Your task to perform on an android device: add a label to a message in the gmail app Image 0: 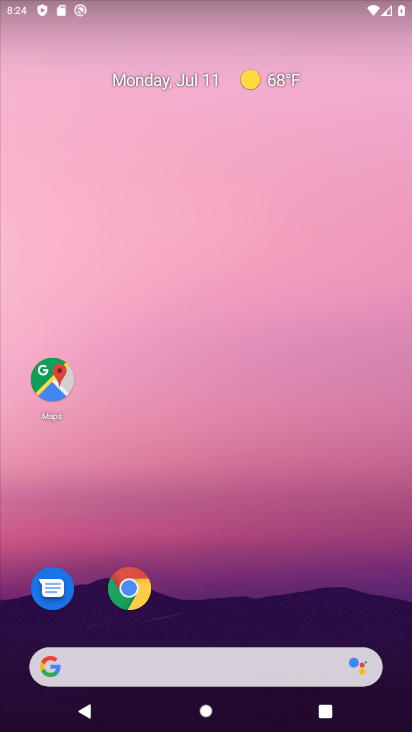
Step 0: drag from (185, 625) to (139, 24)
Your task to perform on an android device: add a label to a message in the gmail app Image 1: 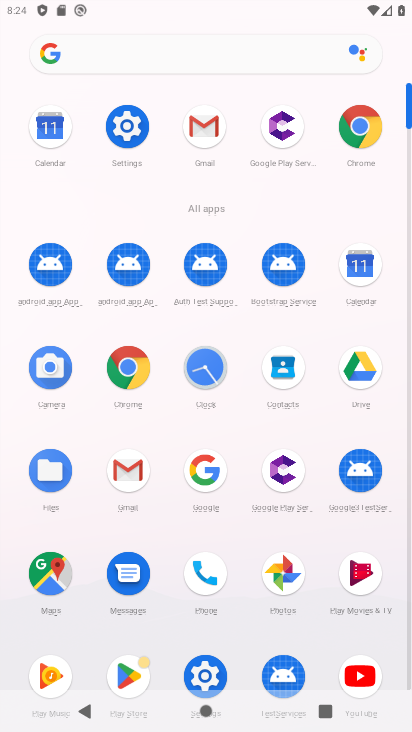
Step 1: click (138, 473)
Your task to perform on an android device: add a label to a message in the gmail app Image 2: 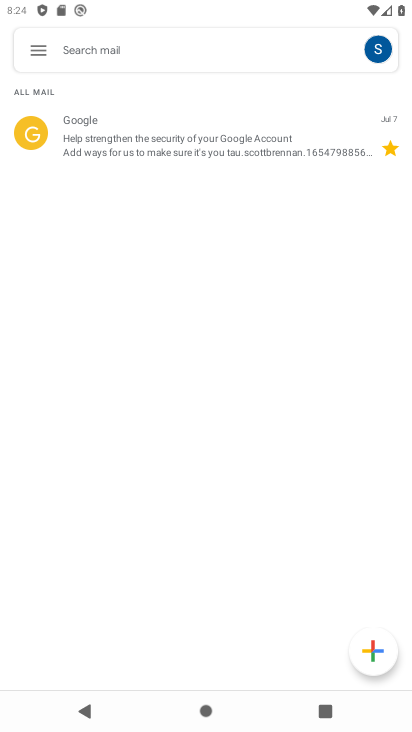
Step 2: click (129, 138)
Your task to perform on an android device: add a label to a message in the gmail app Image 3: 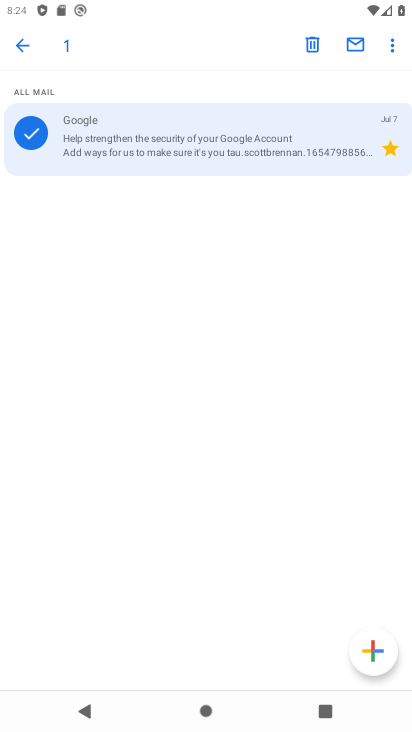
Step 3: click (390, 46)
Your task to perform on an android device: add a label to a message in the gmail app Image 4: 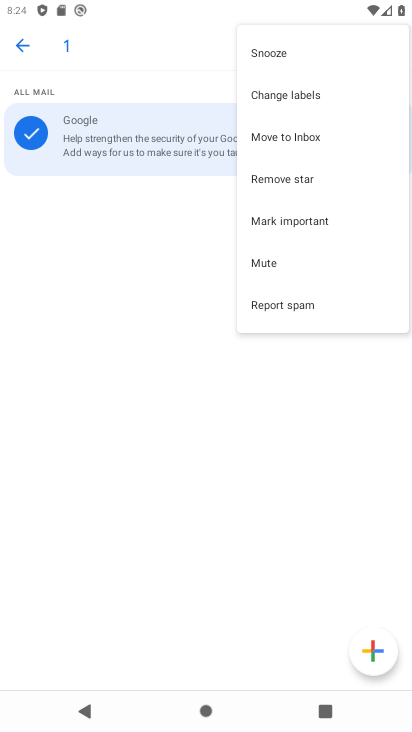
Step 4: click (289, 98)
Your task to perform on an android device: add a label to a message in the gmail app Image 5: 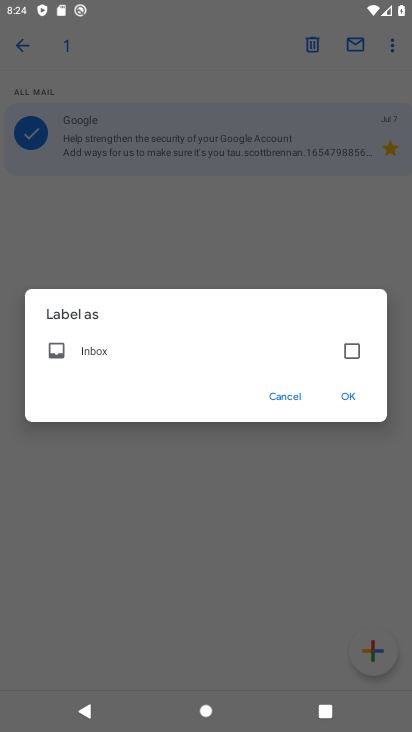
Step 5: click (357, 352)
Your task to perform on an android device: add a label to a message in the gmail app Image 6: 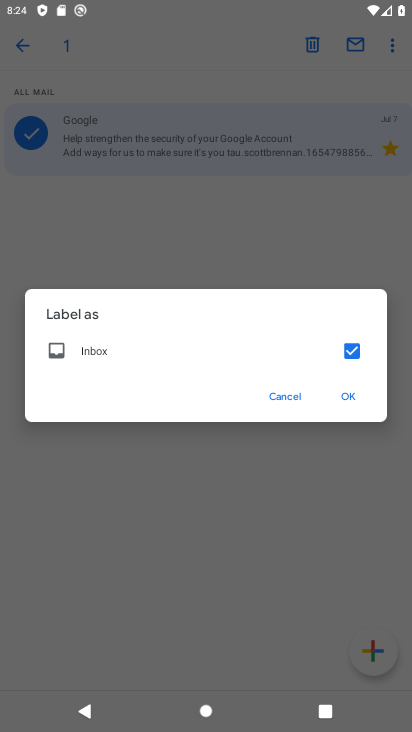
Step 6: click (348, 395)
Your task to perform on an android device: add a label to a message in the gmail app Image 7: 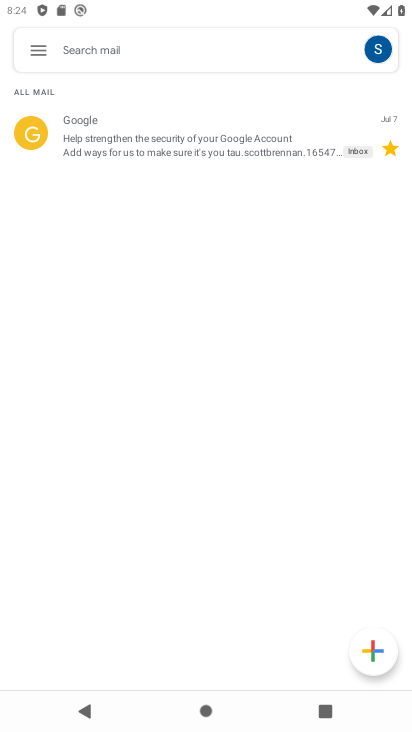
Step 7: task complete